Your task to perform on an android device: Add usb-c to usb-a to the cart on bestbuy.com, then select checkout. Image 0: 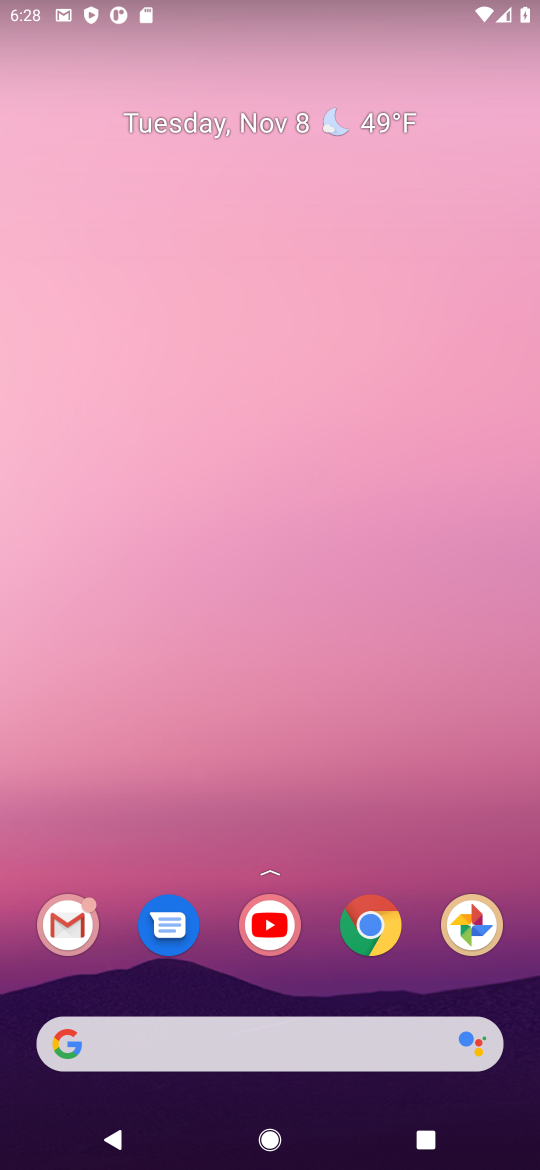
Step 0: click (377, 922)
Your task to perform on an android device: Add usb-c to usb-a to the cart on bestbuy.com, then select checkout. Image 1: 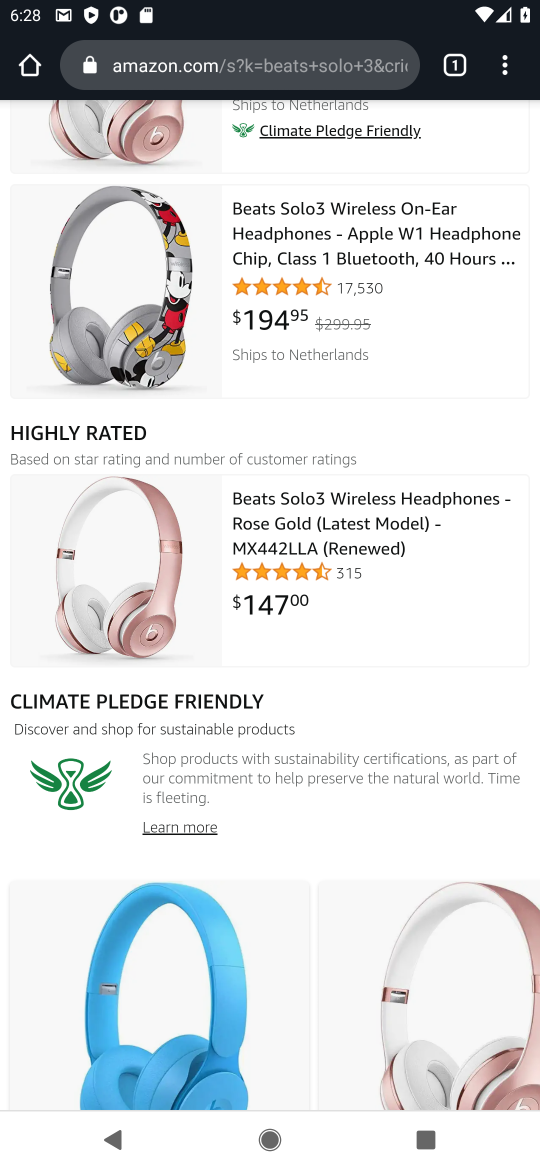
Step 1: click (219, 79)
Your task to perform on an android device: Add usb-c to usb-a to the cart on bestbuy.com, then select checkout. Image 2: 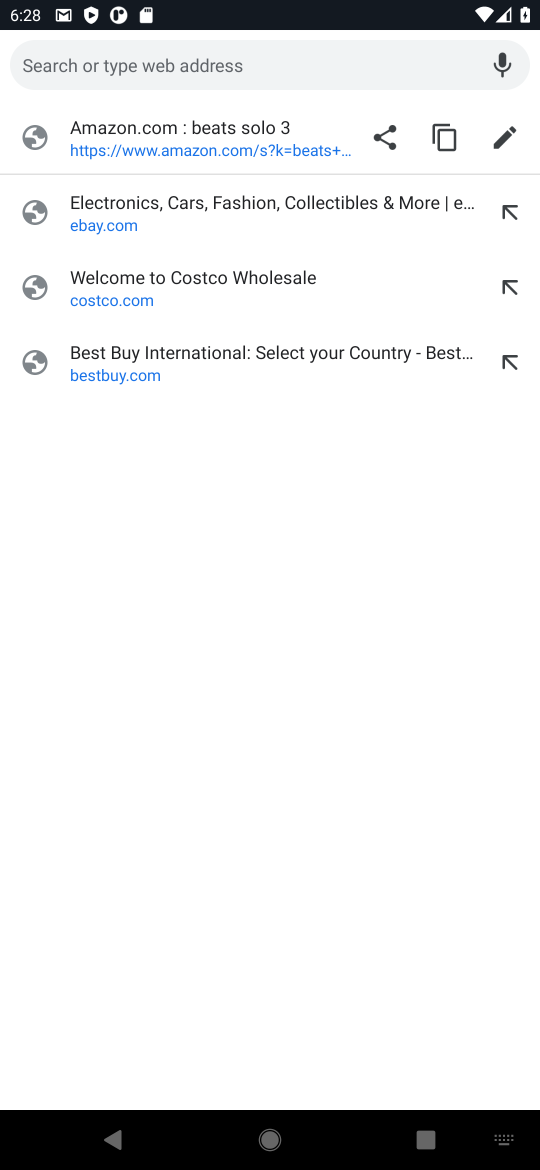
Step 2: type "bestbuy.com"
Your task to perform on an android device: Add usb-c to usb-a to the cart on bestbuy.com, then select checkout. Image 3: 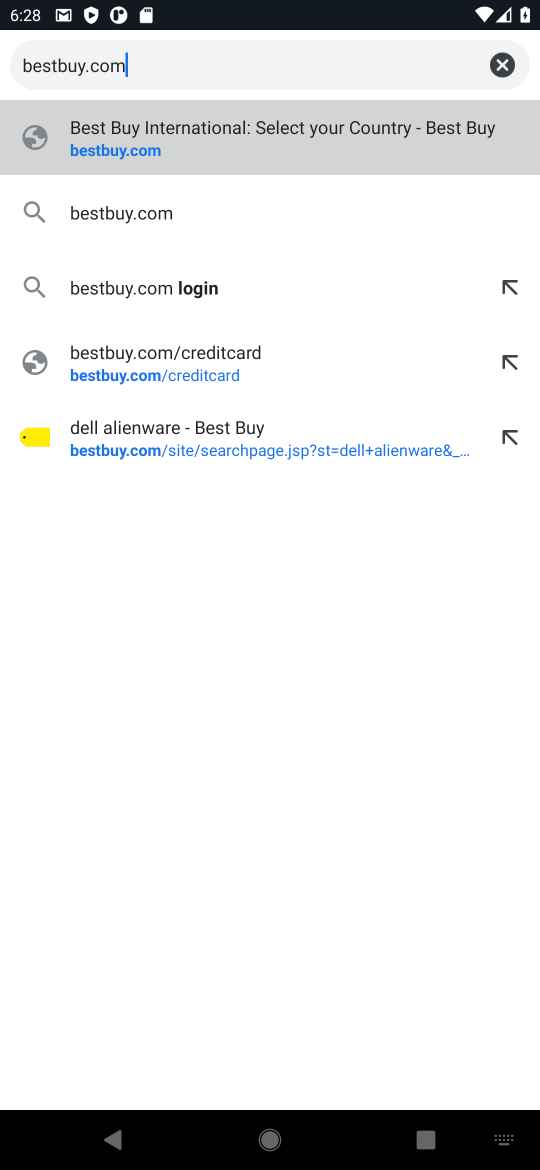
Step 3: press enter
Your task to perform on an android device: Add usb-c to usb-a to the cart on bestbuy.com, then select checkout. Image 4: 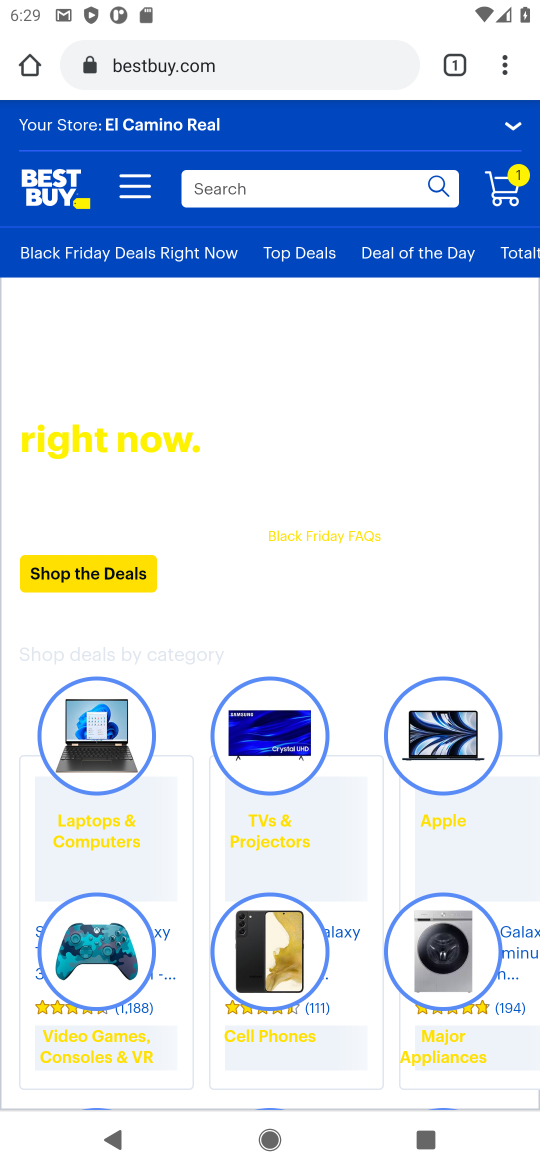
Step 4: click (339, 193)
Your task to perform on an android device: Add usb-c to usb-a to the cart on bestbuy.com, then select checkout. Image 5: 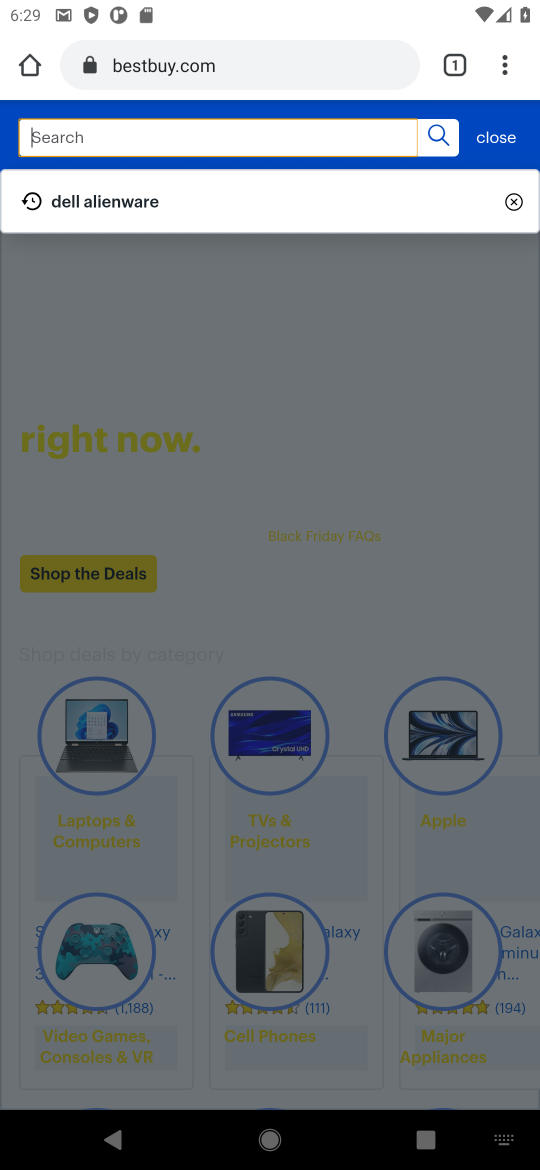
Step 5: type "usb-c to usb-a"
Your task to perform on an android device: Add usb-c to usb-a to the cart on bestbuy.com, then select checkout. Image 6: 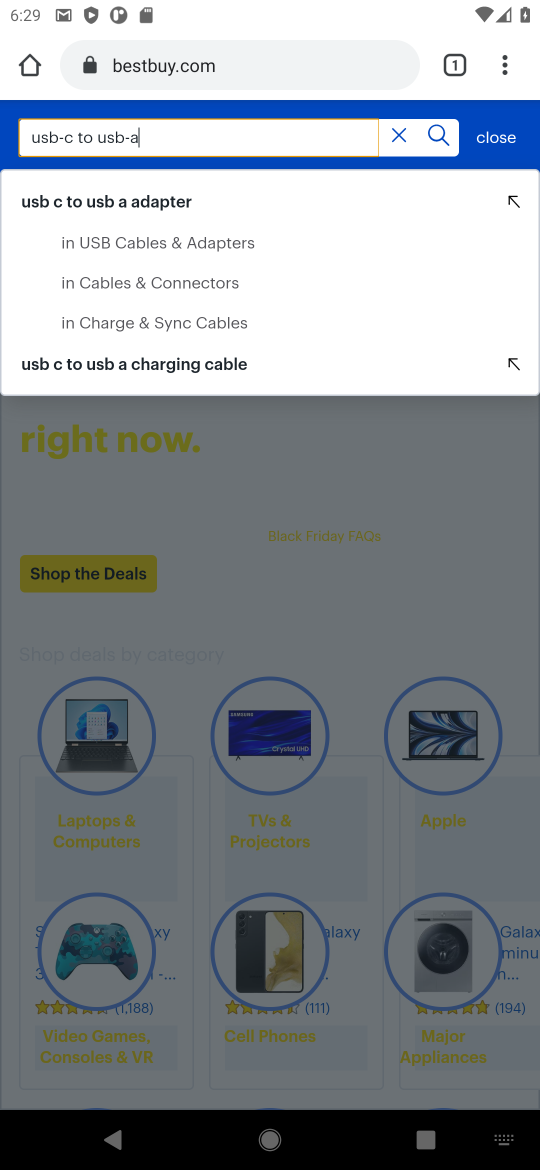
Step 6: press enter
Your task to perform on an android device: Add usb-c to usb-a to the cart on bestbuy.com, then select checkout. Image 7: 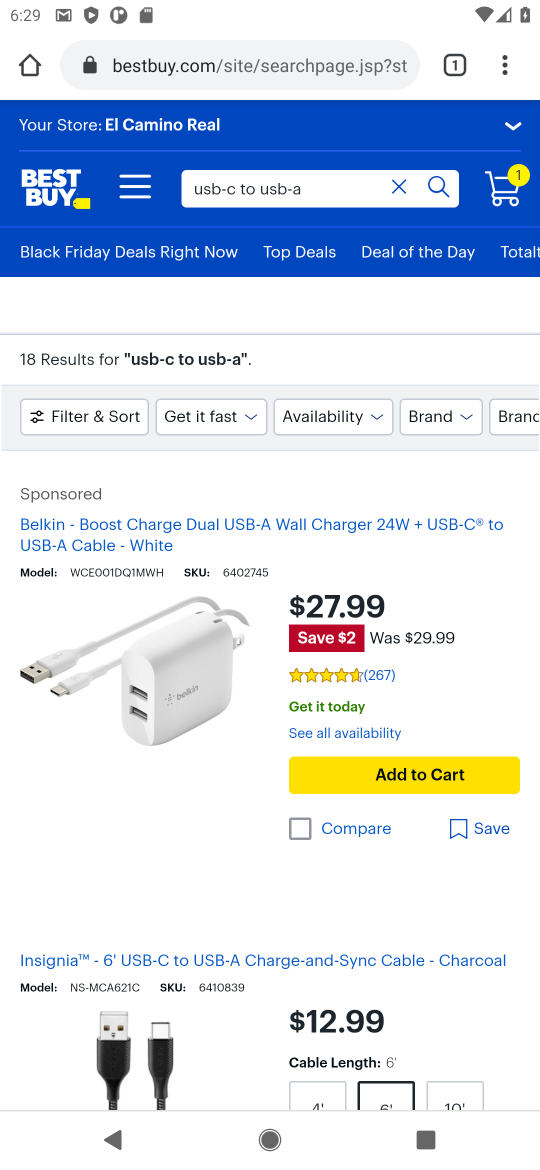
Step 7: drag from (228, 900) to (288, 559)
Your task to perform on an android device: Add usb-c to usb-a to the cart on bestbuy.com, then select checkout. Image 8: 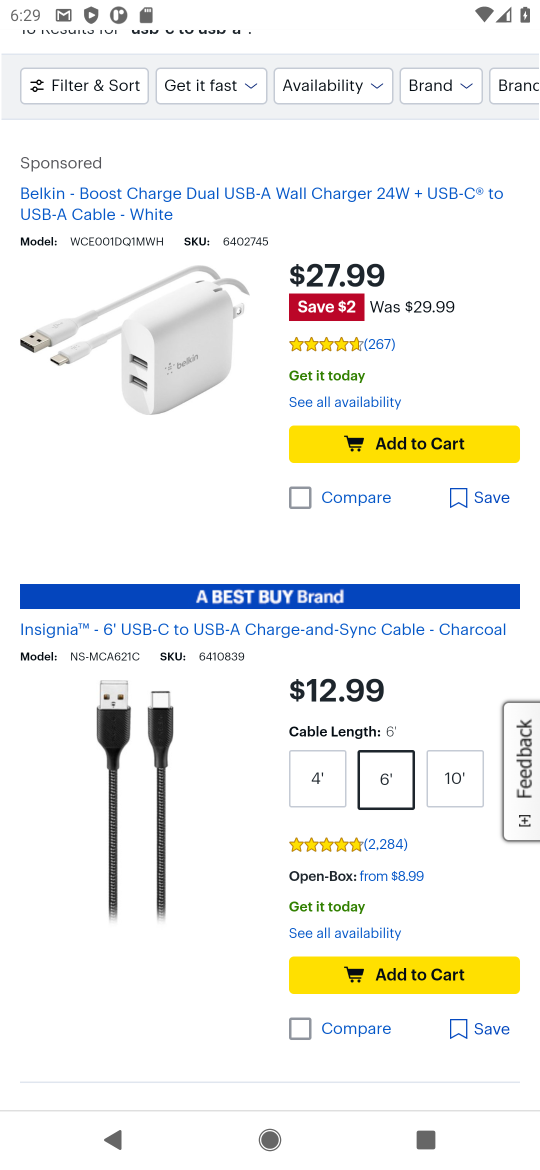
Step 8: click (205, 317)
Your task to perform on an android device: Add usb-c to usb-a to the cart on bestbuy.com, then select checkout. Image 9: 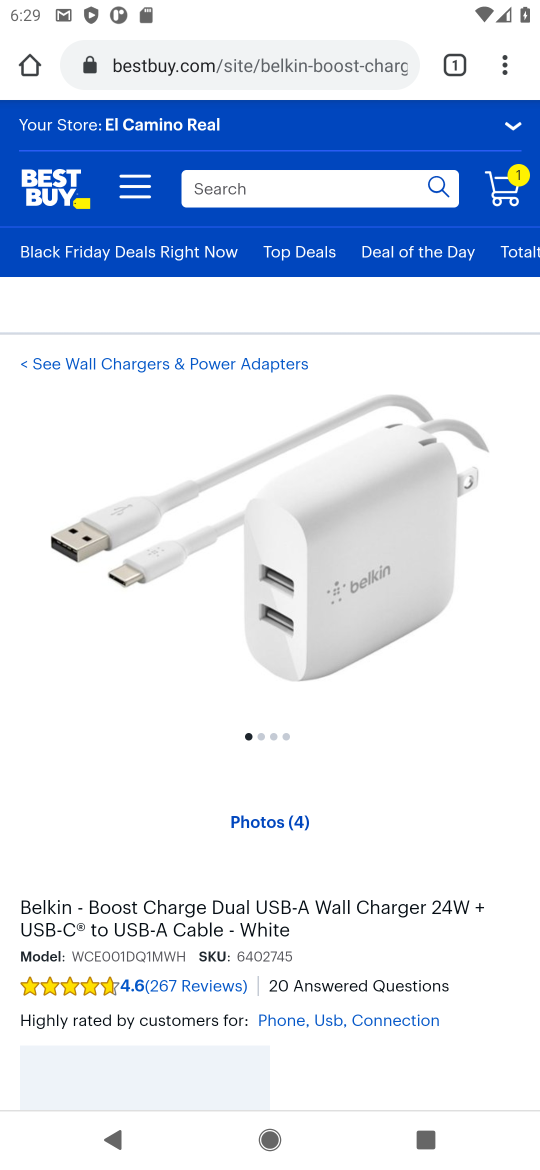
Step 9: drag from (477, 967) to (354, 94)
Your task to perform on an android device: Add usb-c to usb-a to the cart on bestbuy.com, then select checkout. Image 10: 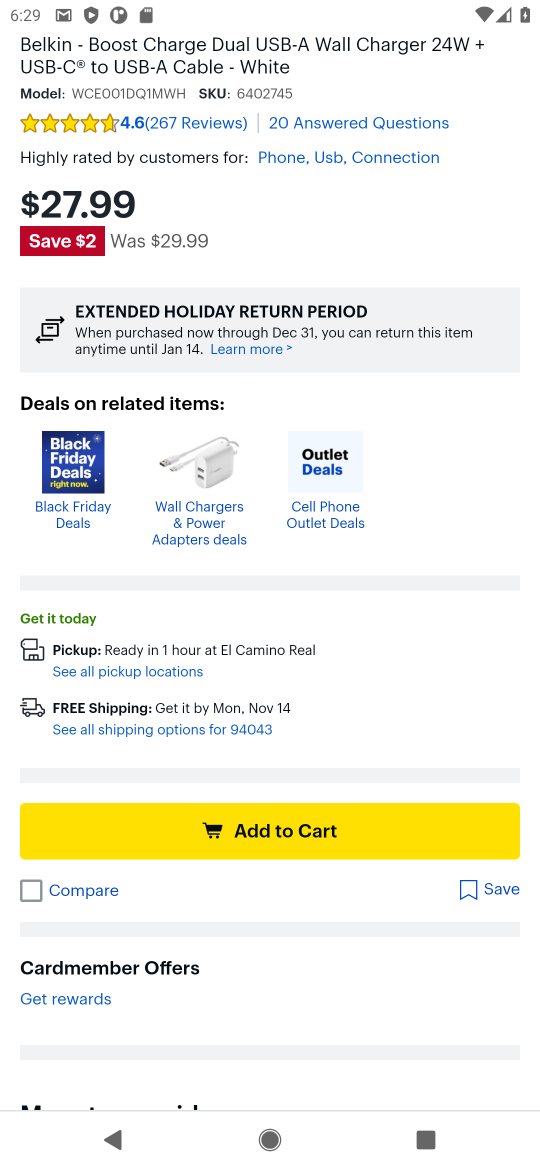
Step 10: click (238, 828)
Your task to perform on an android device: Add usb-c to usb-a to the cart on bestbuy.com, then select checkout. Image 11: 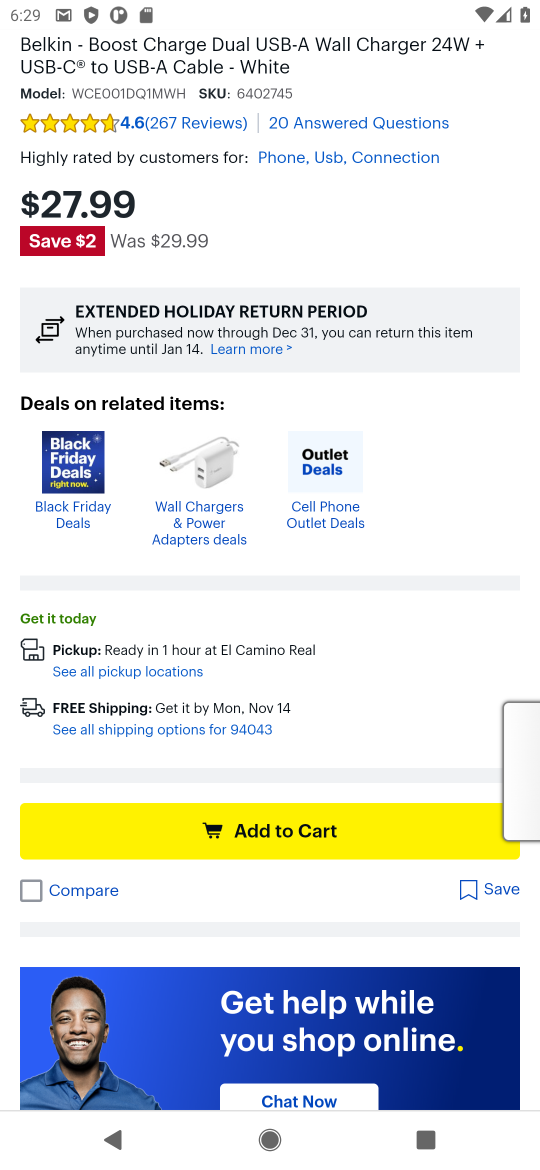
Step 11: drag from (444, 520) to (413, 979)
Your task to perform on an android device: Add usb-c to usb-a to the cart on bestbuy.com, then select checkout. Image 12: 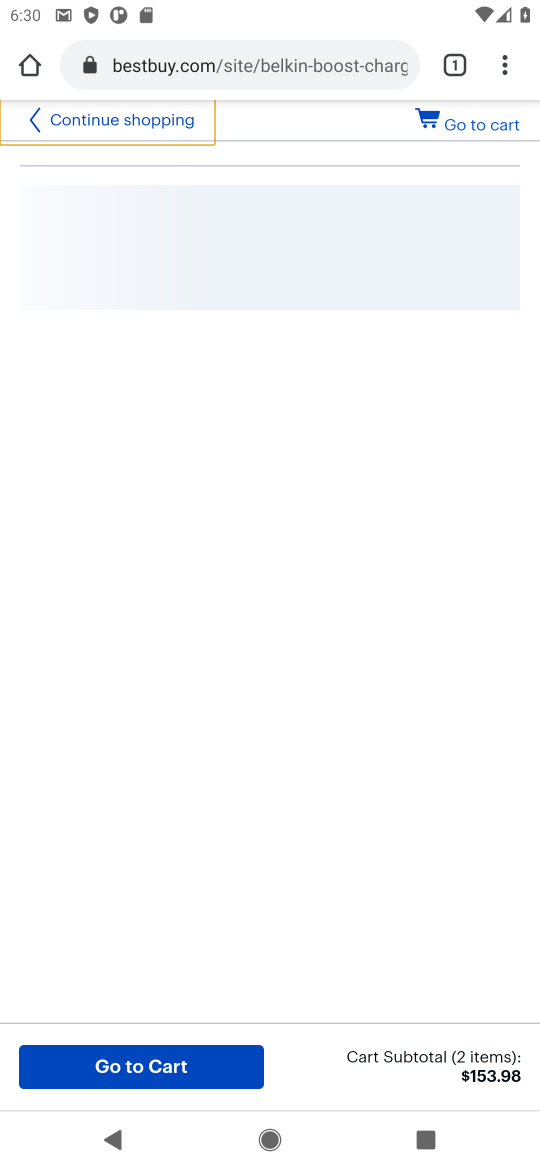
Step 12: click (151, 1065)
Your task to perform on an android device: Add usb-c to usb-a to the cart on bestbuy.com, then select checkout. Image 13: 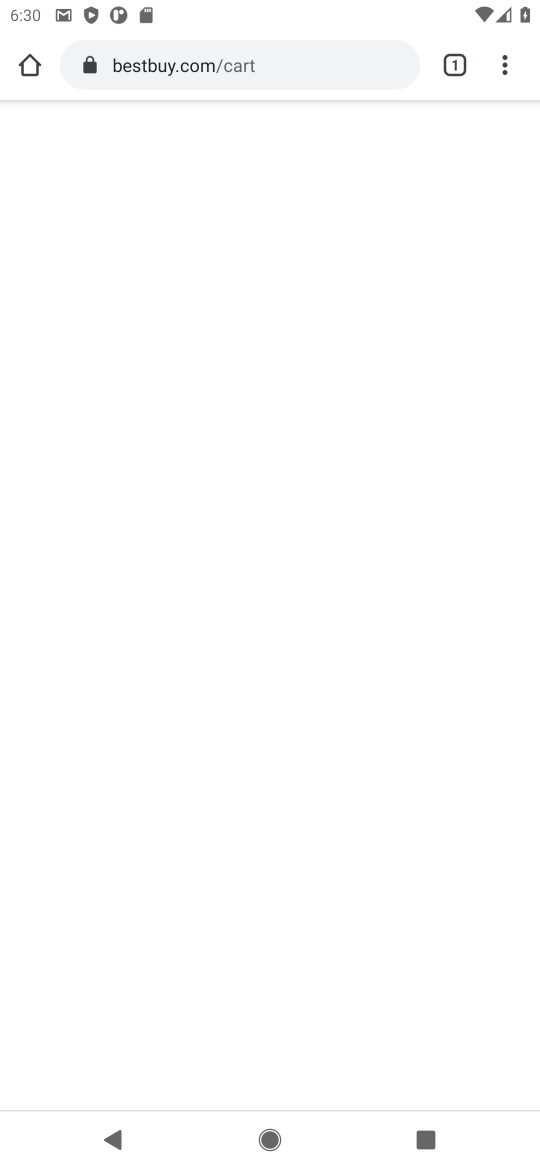
Step 13: press back button
Your task to perform on an android device: Add usb-c to usb-a to the cart on bestbuy.com, then select checkout. Image 14: 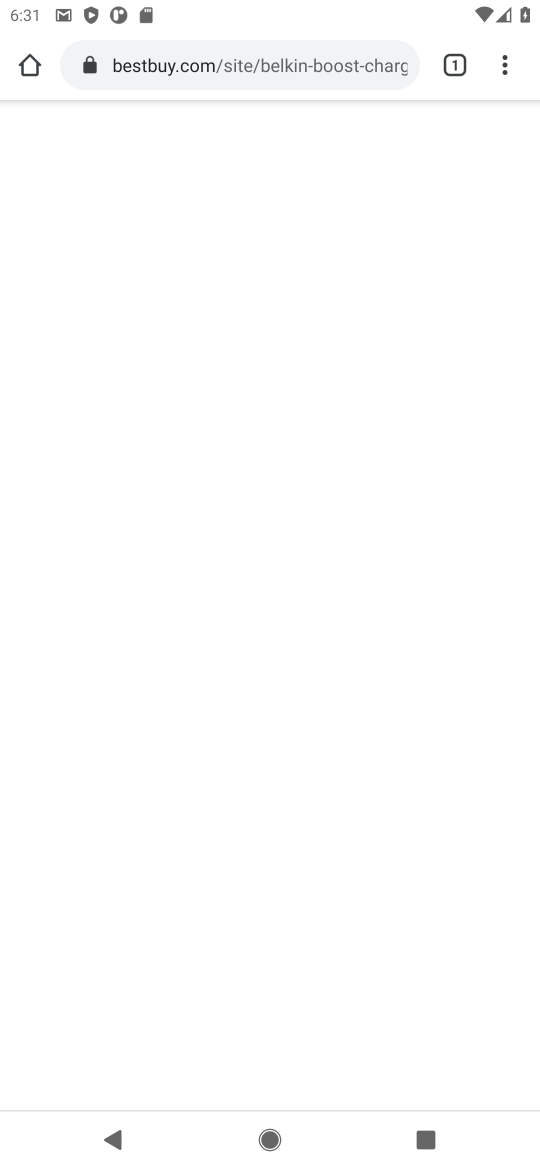
Step 14: press back button
Your task to perform on an android device: Add usb-c to usb-a to the cart on bestbuy.com, then select checkout. Image 15: 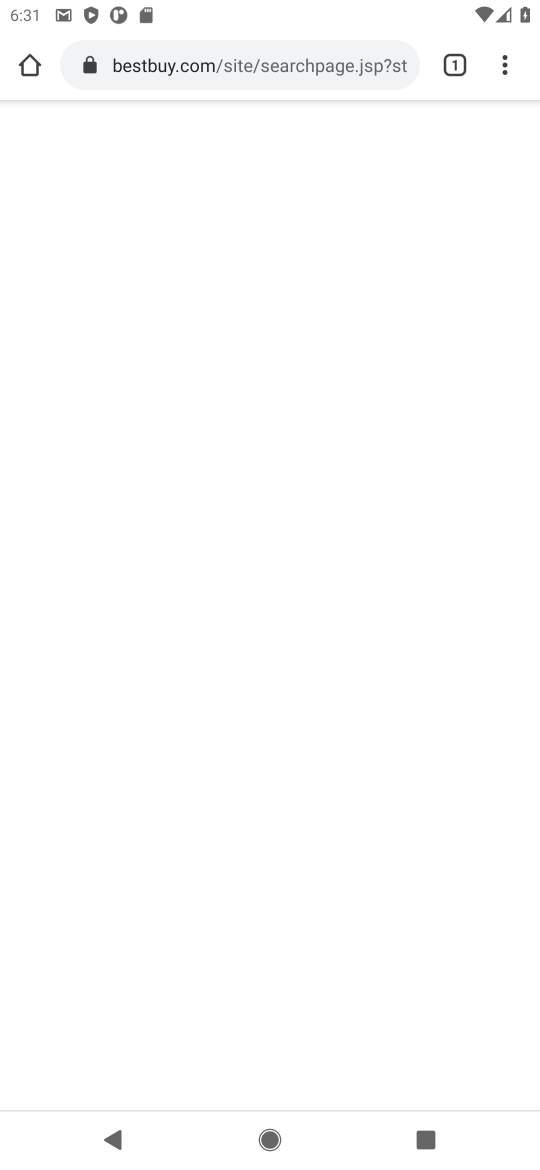
Step 15: press home button
Your task to perform on an android device: Add usb-c to usb-a to the cart on bestbuy.com, then select checkout. Image 16: 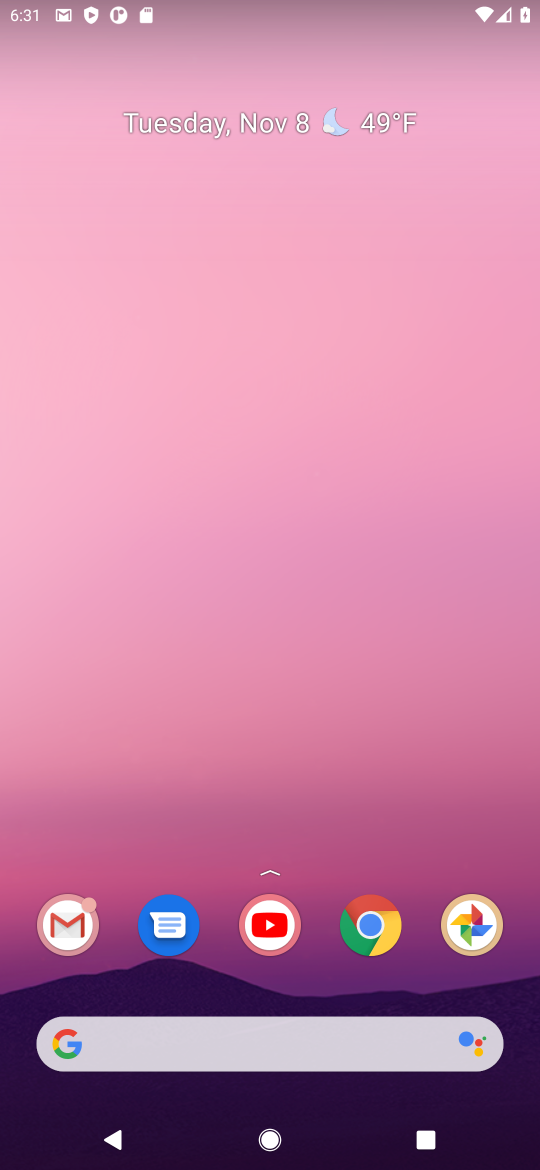
Step 16: click (375, 927)
Your task to perform on an android device: Add usb-c to usb-a to the cart on bestbuy.com, then select checkout. Image 17: 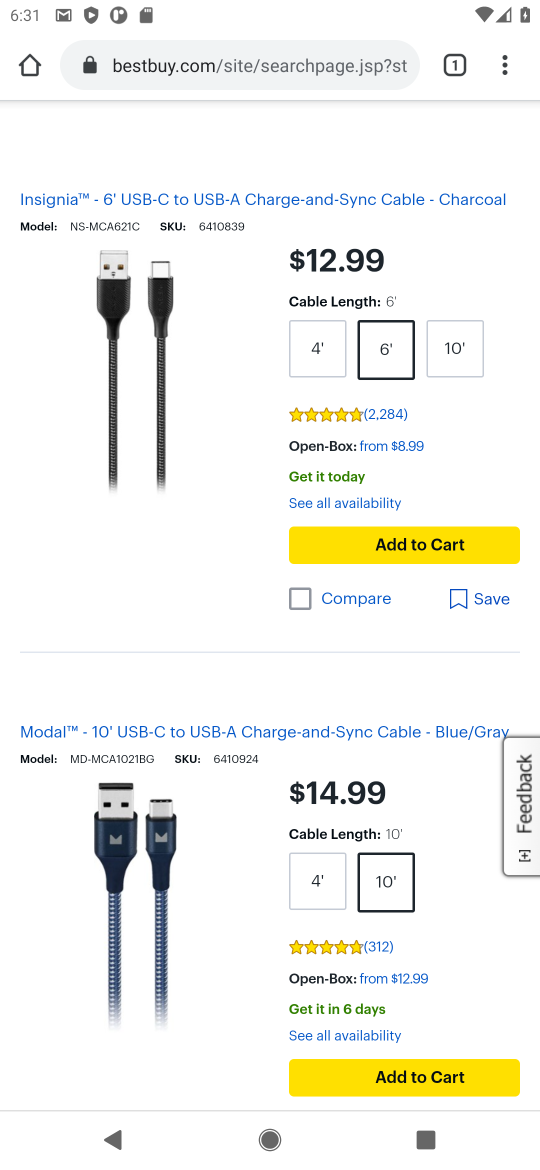
Step 17: drag from (251, 332) to (298, 855)
Your task to perform on an android device: Add usb-c to usb-a to the cart on bestbuy.com, then select checkout. Image 18: 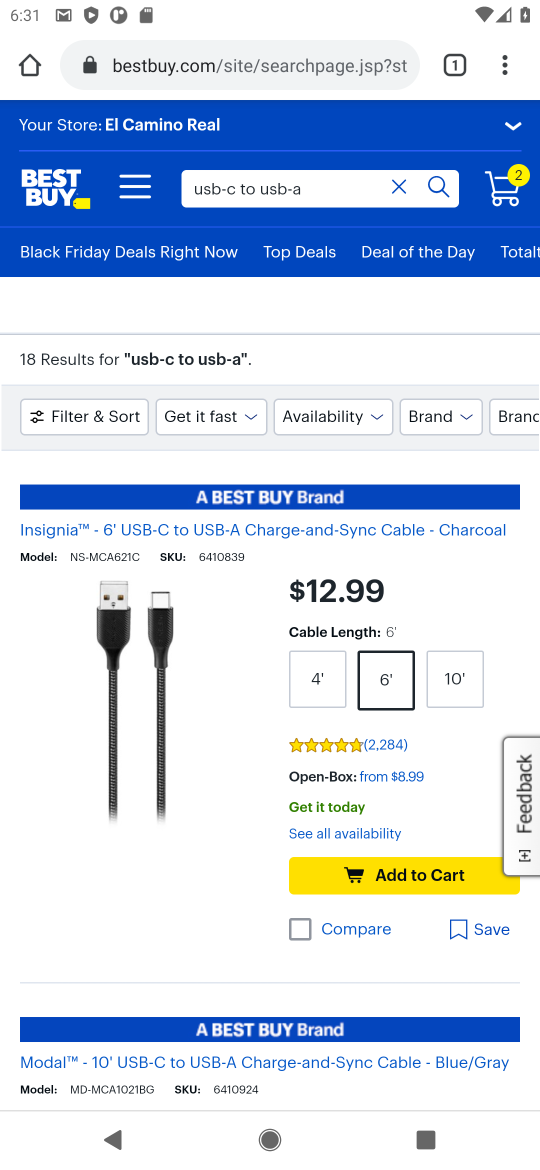
Step 18: click (516, 179)
Your task to perform on an android device: Add usb-c to usb-a to the cart on bestbuy.com, then select checkout. Image 19: 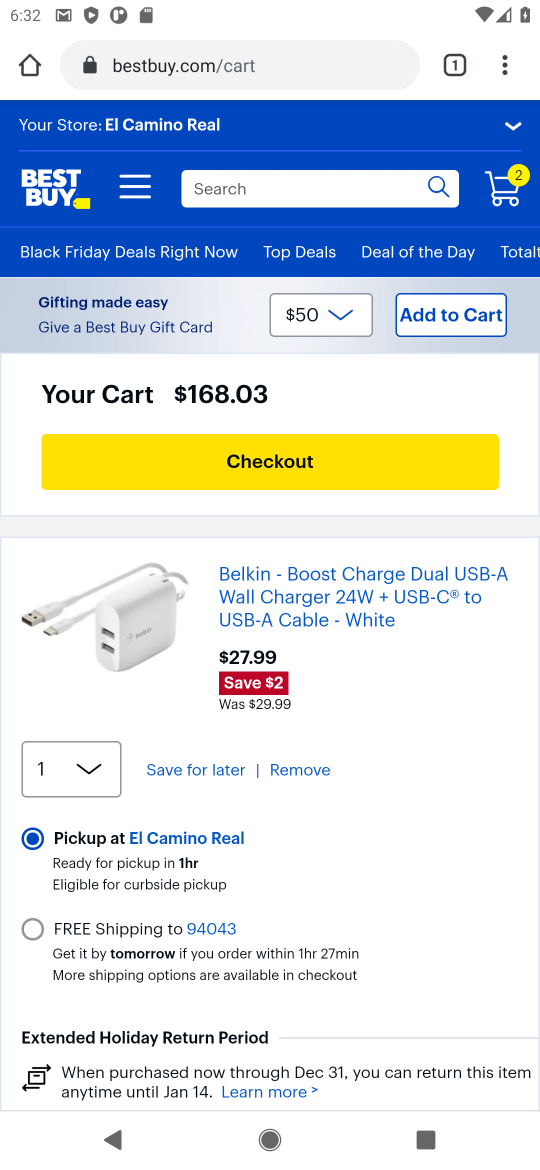
Step 19: click (331, 467)
Your task to perform on an android device: Add usb-c to usb-a to the cart on bestbuy.com, then select checkout. Image 20: 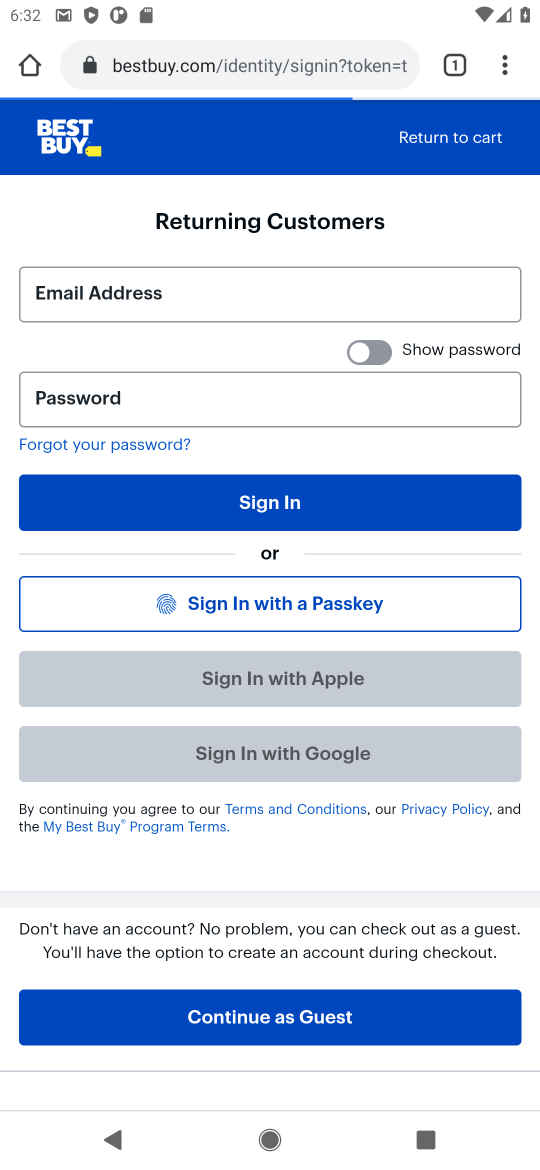
Step 20: task complete